Your task to perform on an android device: open chrome and create a bookmark for the current page Image 0: 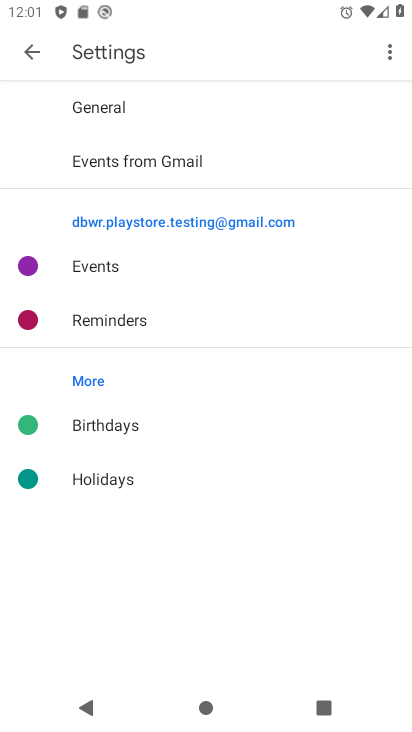
Step 0: press home button
Your task to perform on an android device: open chrome and create a bookmark for the current page Image 1: 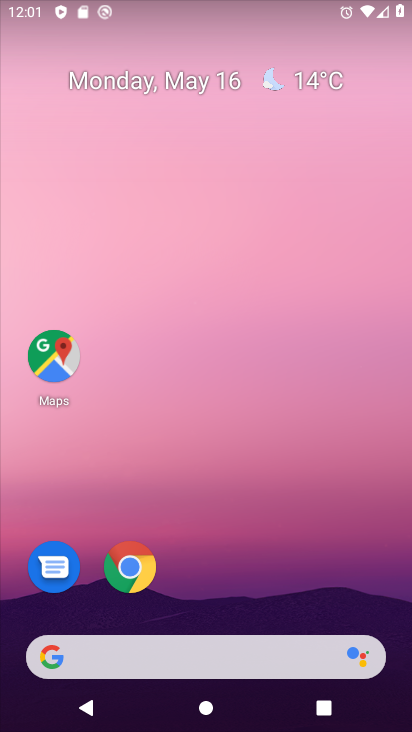
Step 1: click (123, 573)
Your task to perform on an android device: open chrome and create a bookmark for the current page Image 2: 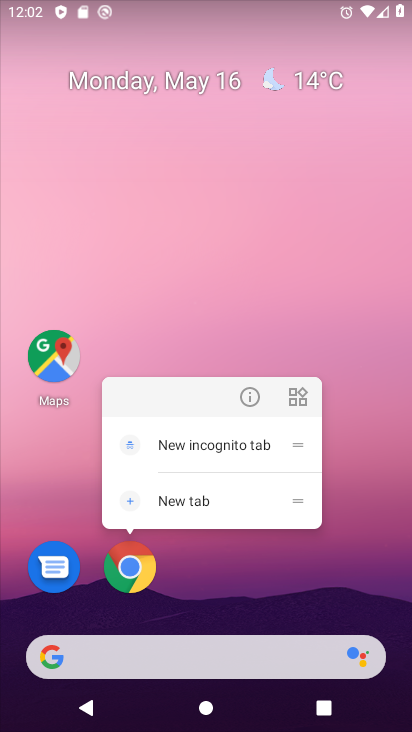
Step 2: click (123, 576)
Your task to perform on an android device: open chrome and create a bookmark for the current page Image 3: 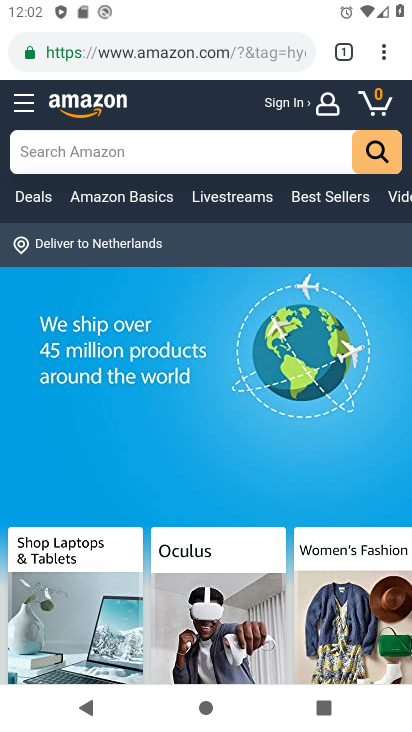
Step 3: click (379, 51)
Your task to perform on an android device: open chrome and create a bookmark for the current page Image 4: 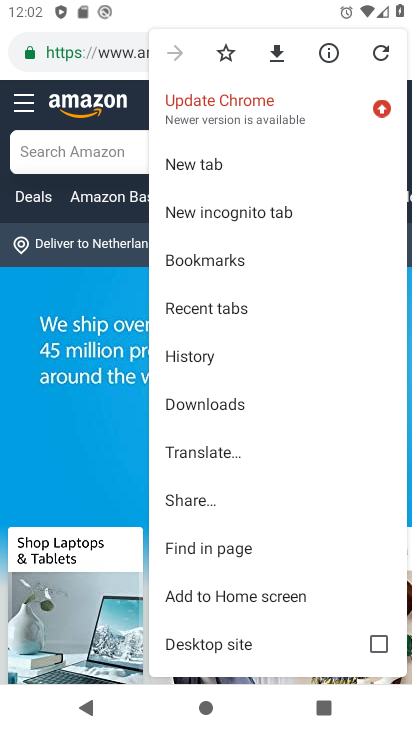
Step 4: click (235, 54)
Your task to perform on an android device: open chrome and create a bookmark for the current page Image 5: 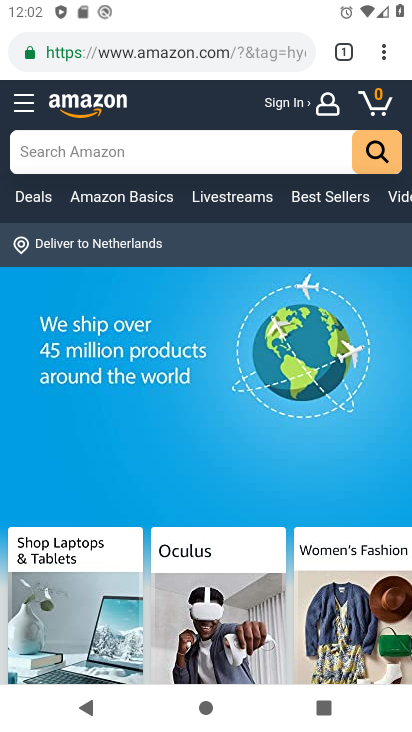
Step 5: task complete